Your task to perform on an android device: turn on translation in the chrome app Image 0: 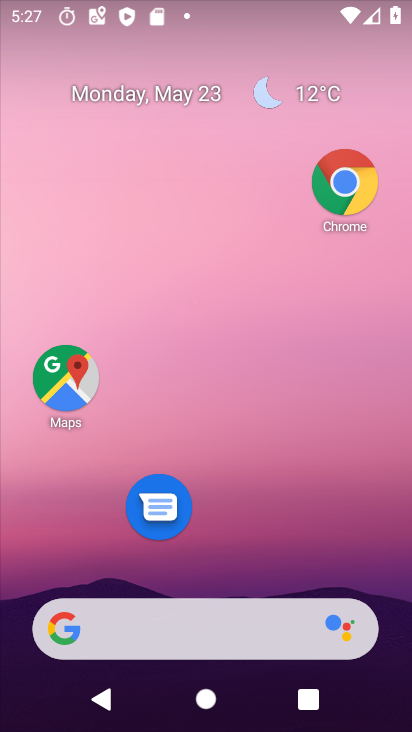
Step 0: click (334, 196)
Your task to perform on an android device: turn on translation in the chrome app Image 1: 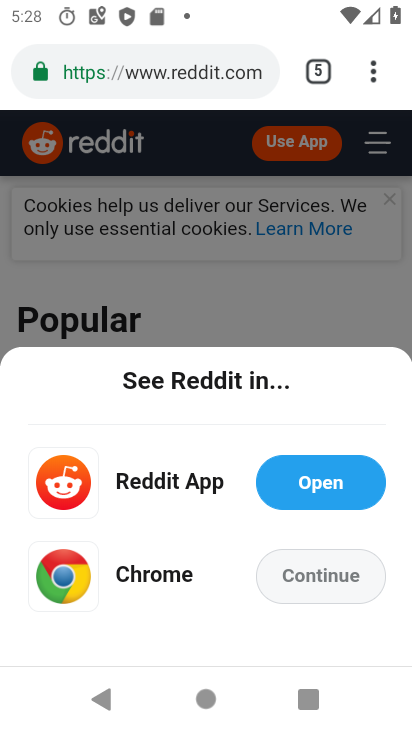
Step 1: click (379, 69)
Your task to perform on an android device: turn on translation in the chrome app Image 2: 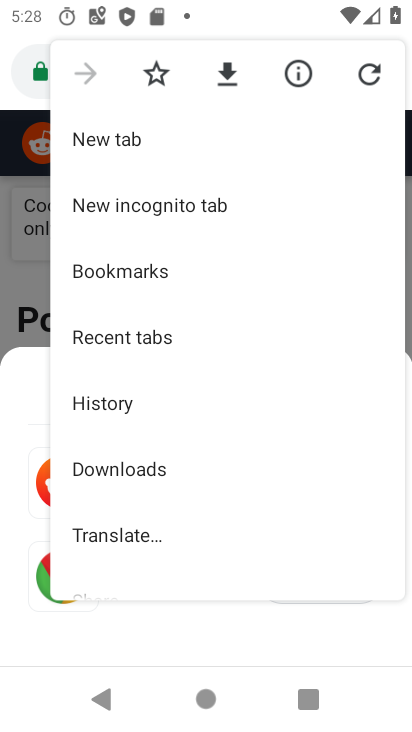
Step 2: drag from (172, 543) to (307, 30)
Your task to perform on an android device: turn on translation in the chrome app Image 3: 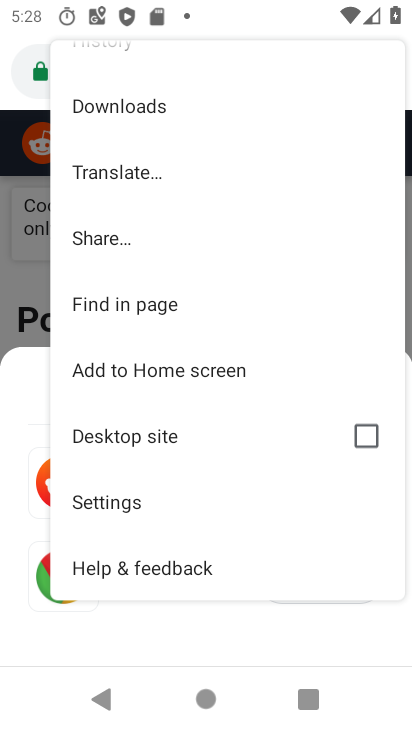
Step 3: click (91, 508)
Your task to perform on an android device: turn on translation in the chrome app Image 4: 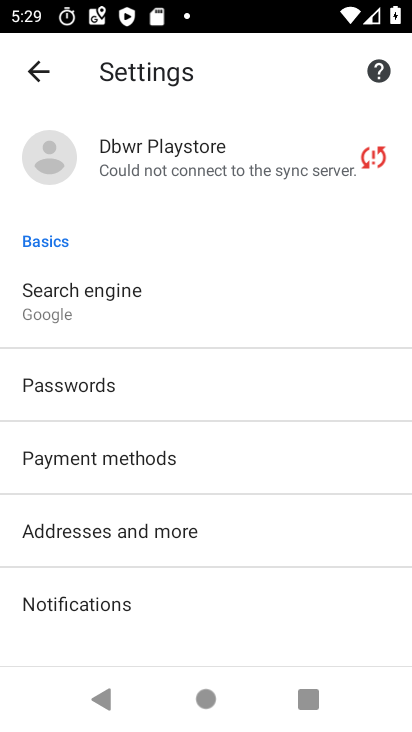
Step 4: drag from (100, 588) to (184, 275)
Your task to perform on an android device: turn on translation in the chrome app Image 5: 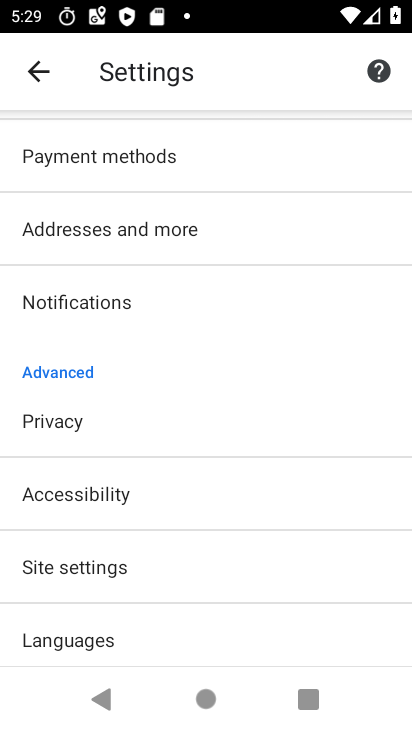
Step 5: click (100, 640)
Your task to perform on an android device: turn on translation in the chrome app Image 6: 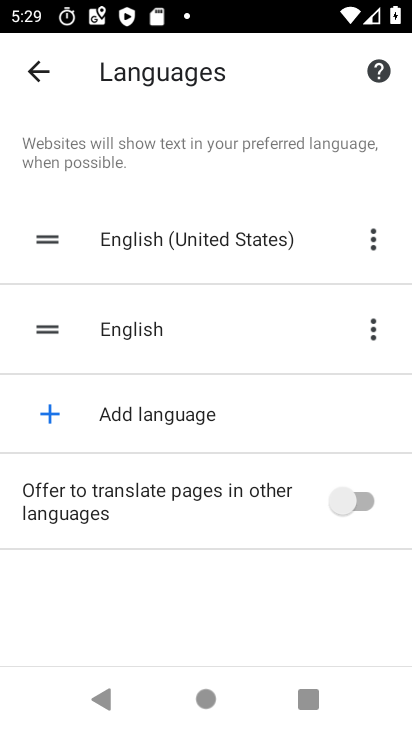
Step 6: click (359, 493)
Your task to perform on an android device: turn on translation in the chrome app Image 7: 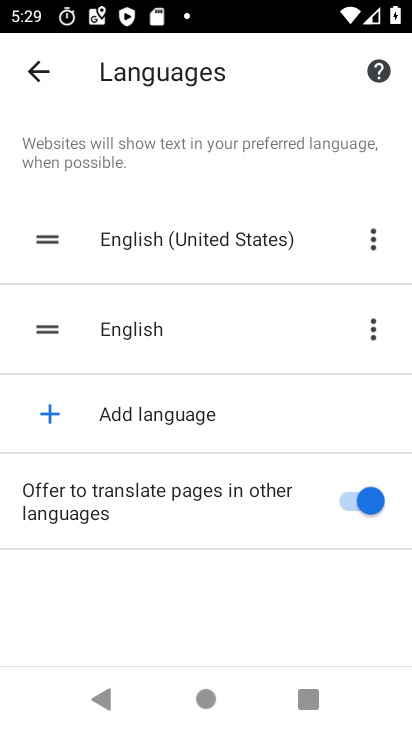
Step 7: task complete